Your task to perform on an android device: check android version Image 0: 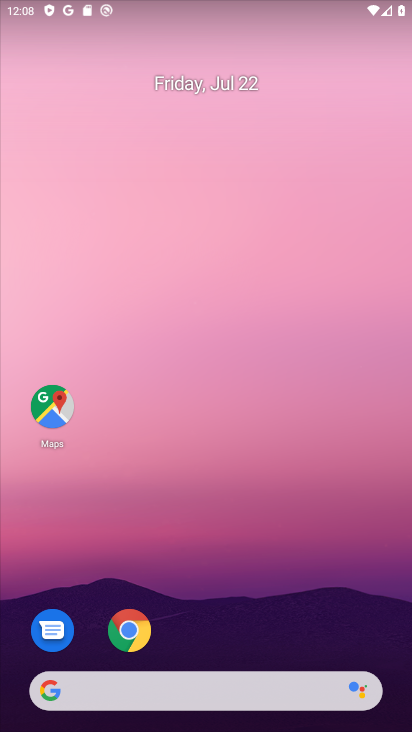
Step 0: drag from (183, 494) to (205, 50)
Your task to perform on an android device: check android version Image 1: 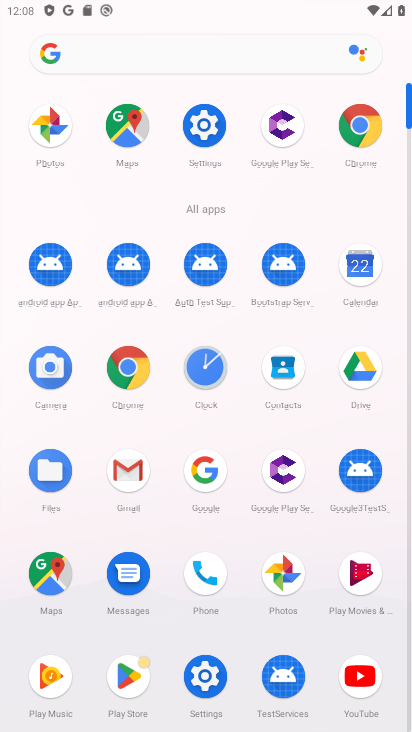
Step 1: click (200, 129)
Your task to perform on an android device: check android version Image 2: 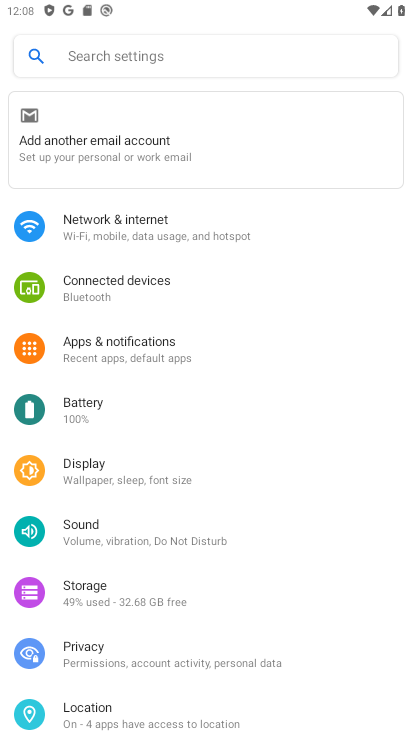
Step 2: drag from (191, 627) to (192, 50)
Your task to perform on an android device: check android version Image 3: 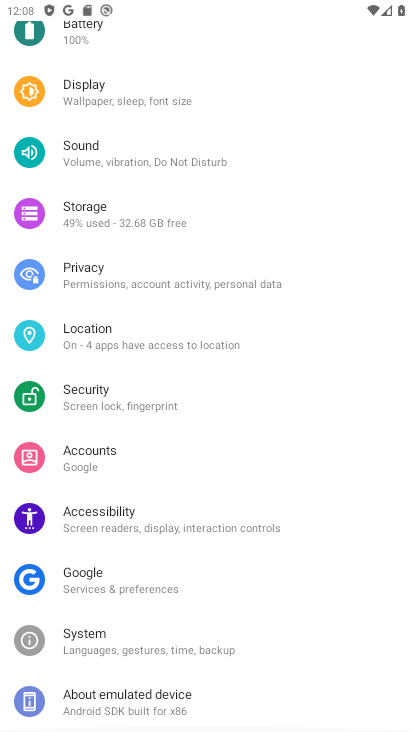
Step 3: click (117, 704)
Your task to perform on an android device: check android version Image 4: 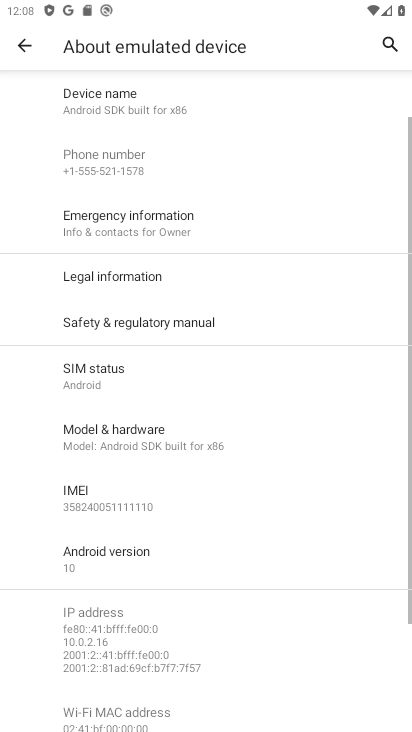
Step 4: click (107, 566)
Your task to perform on an android device: check android version Image 5: 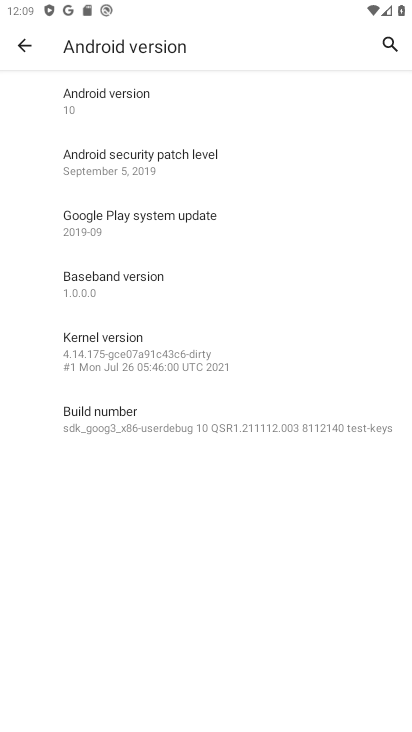
Step 5: task complete